Your task to perform on an android device: What's the weather today? Image 0: 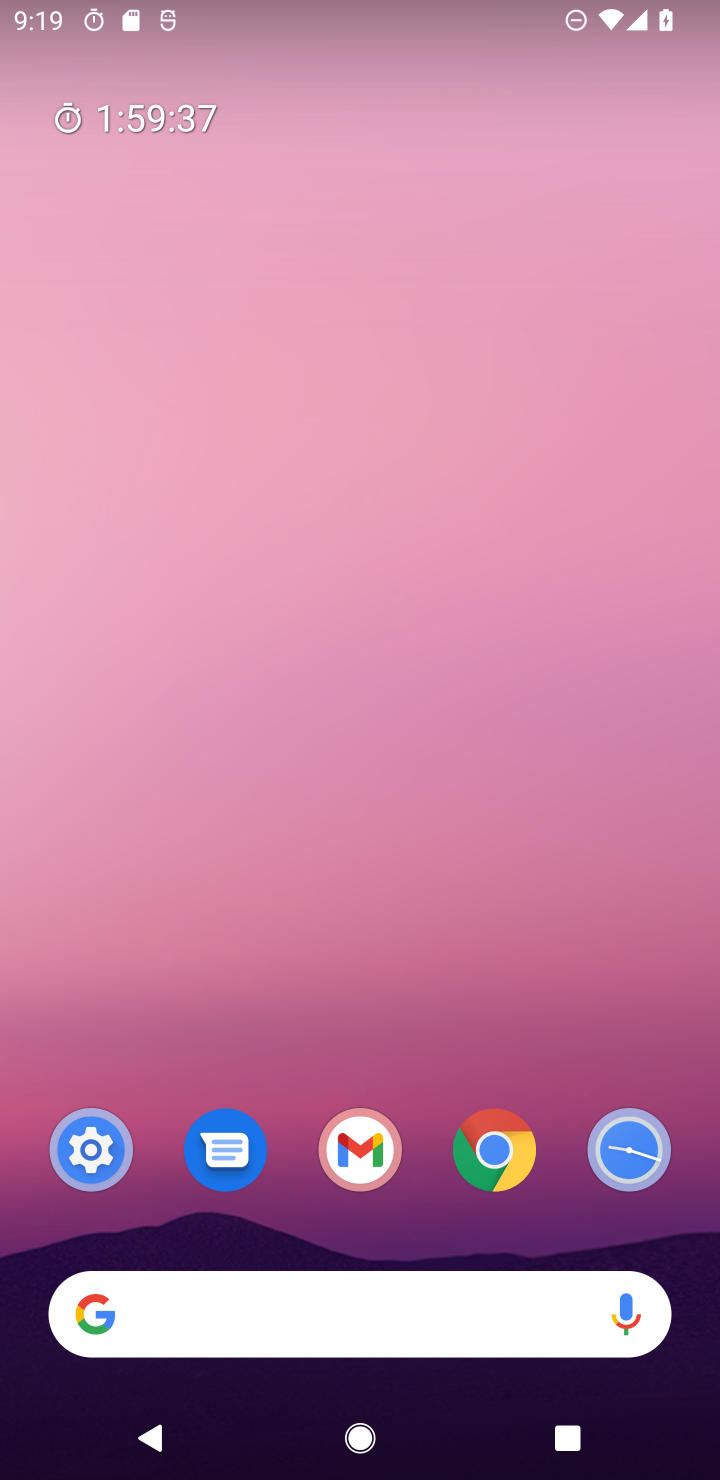
Step 0: drag from (337, 1227) to (534, 78)
Your task to perform on an android device: What's the weather today? Image 1: 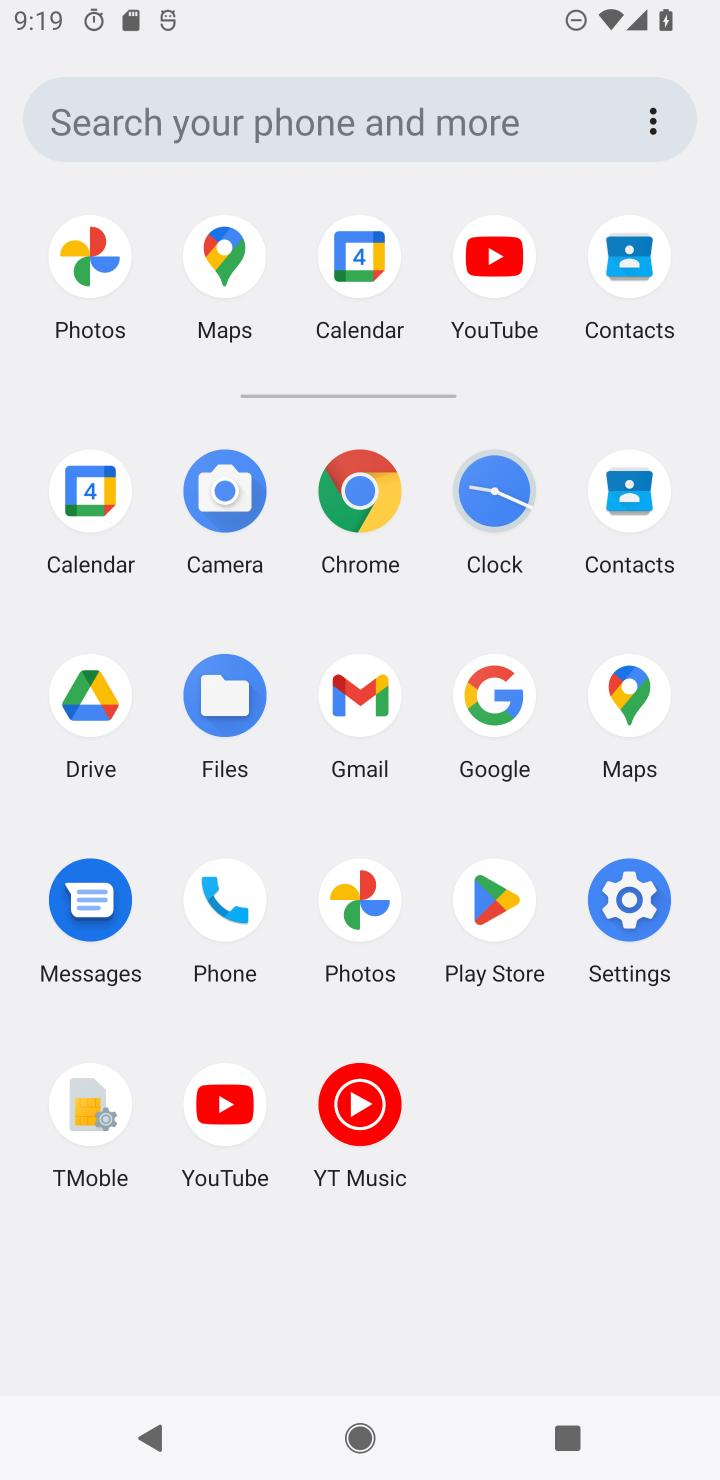
Step 1: click (357, 506)
Your task to perform on an android device: What's the weather today? Image 2: 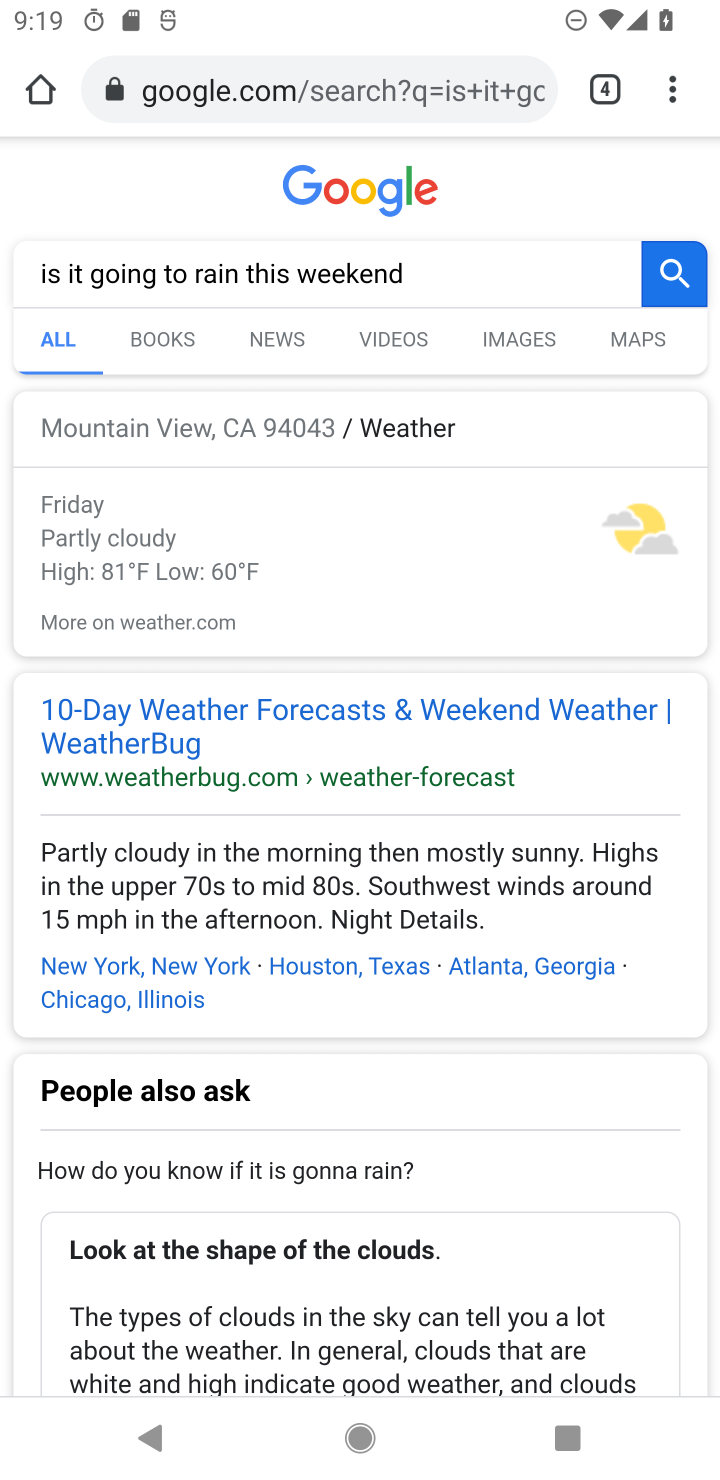
Step 2: click (379, 95)
Your task to perform on an android device: What's the weather today? Image 3: 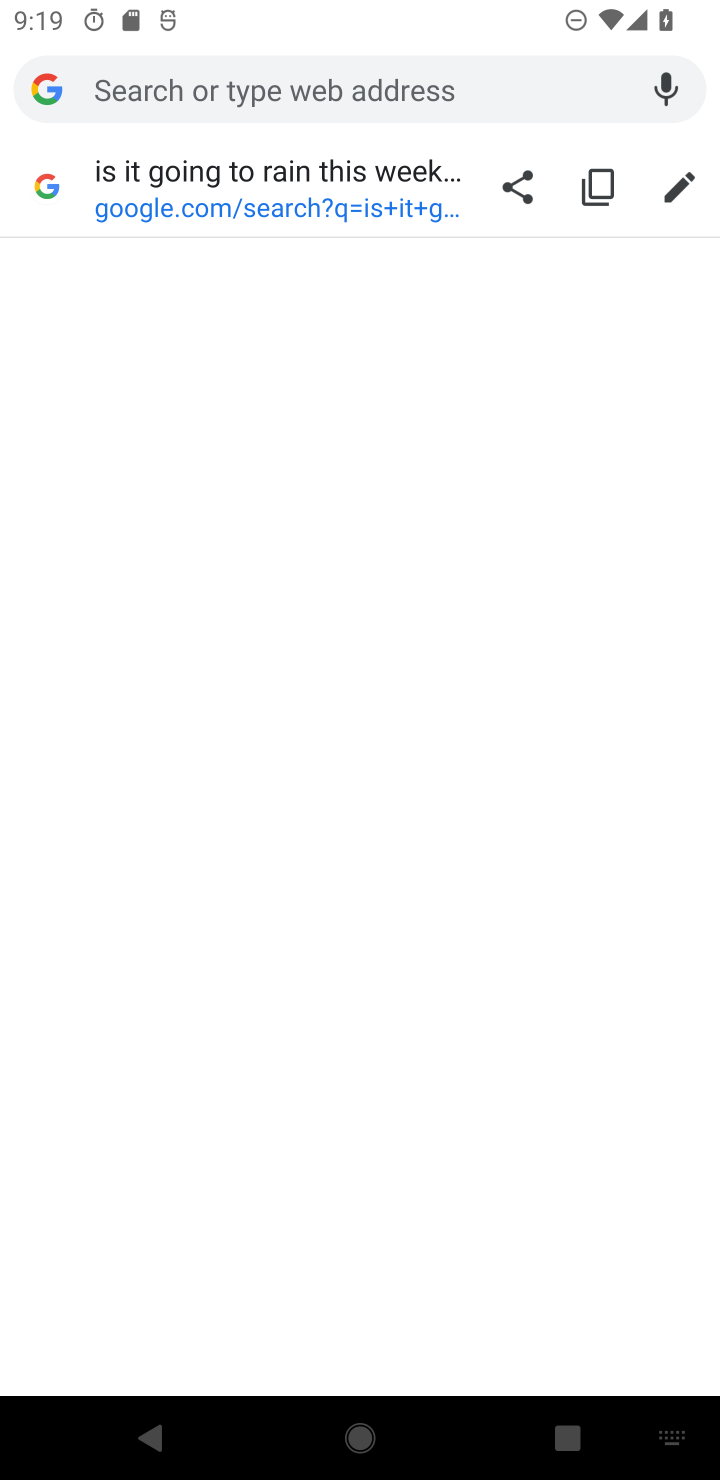
Step 3: type "what the weather today"
Your task to perform on an android device: What's the weather today? Image 4: 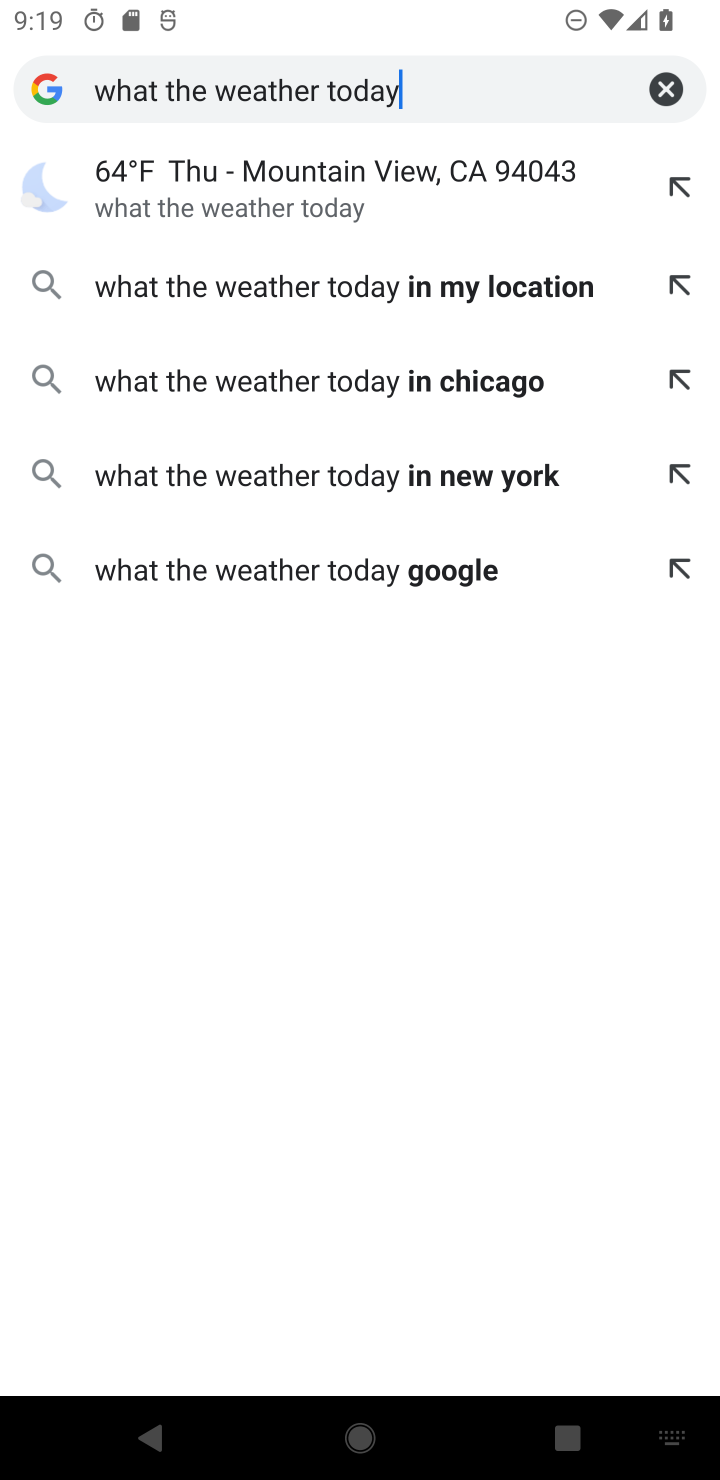
Step 4: click (293, 165)
Your task to perform on an android device: What's the weather today? Image 5: 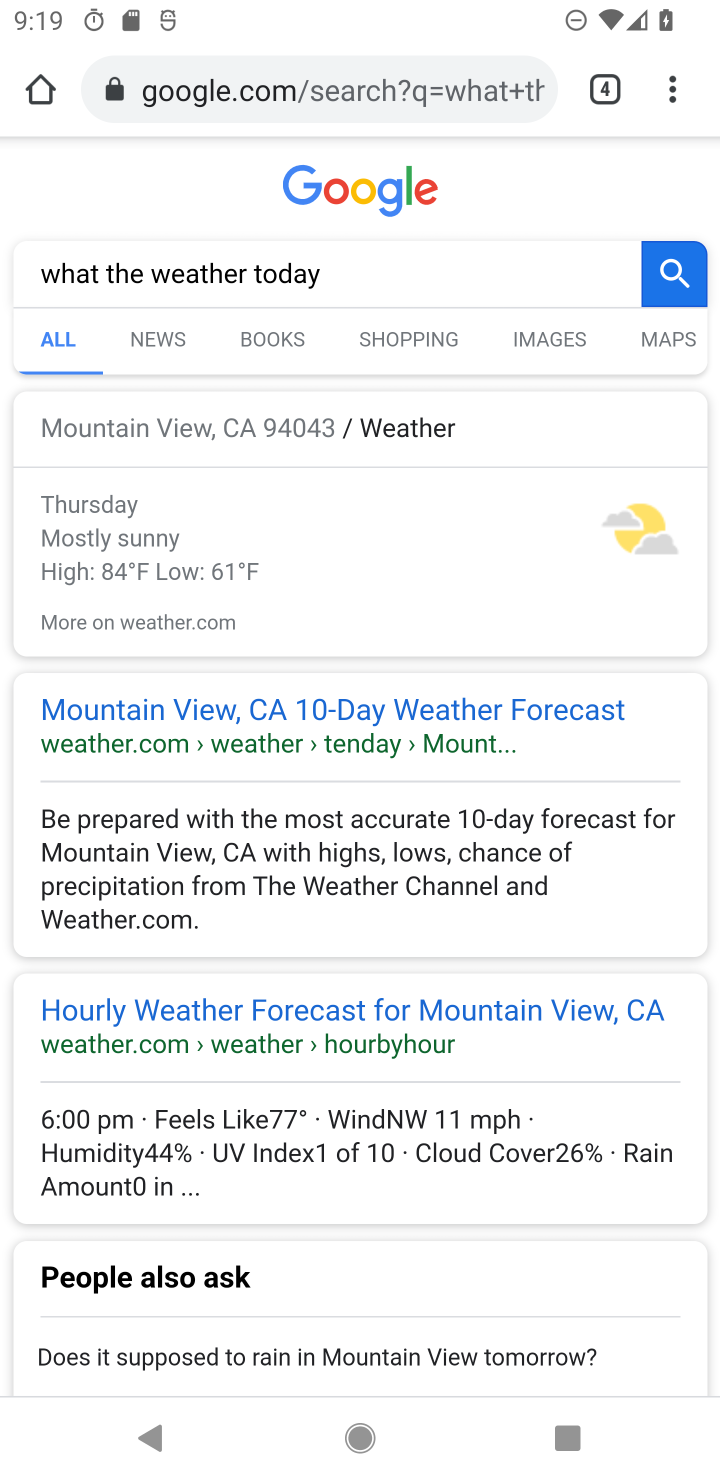
Step 5: task complete